Your task to perform on an android device: What's on my calendar today? Image 0: 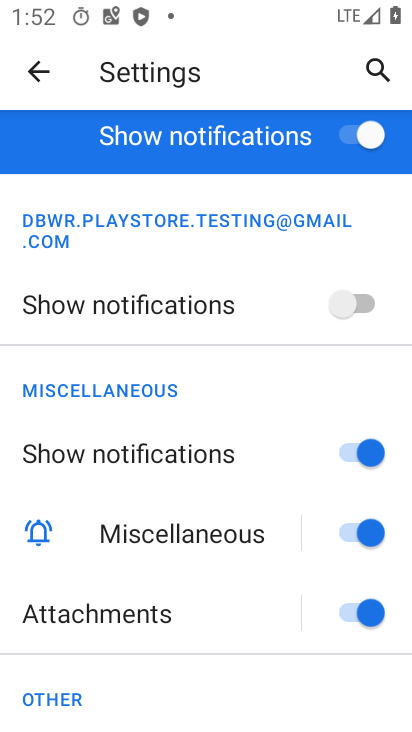
Step 0: press back button
Your task to perform on an android device: What's on my calendar today? Image 1: 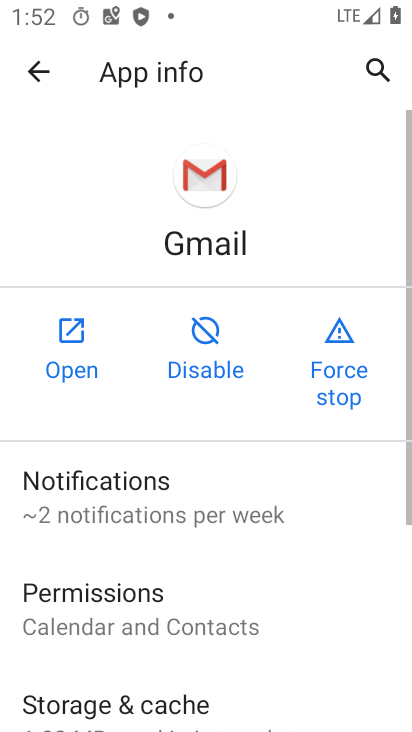
Step 1: press back button
Your task to perform on an android device: What's on my calendar today? Image 2: 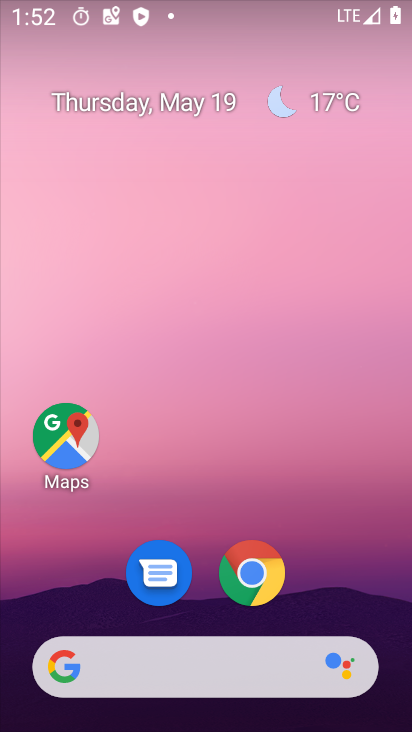
Step 2: drag from (242, 596) to (306, 76)
Your task to perform on an android device: What's on my calendar today? Image 3: 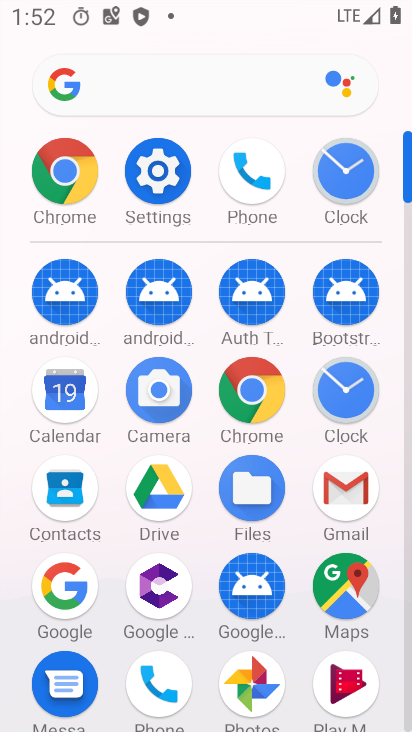
Step 3: click (63, 392)
Your task to perform on an android device: What's on my calendar today? Image 4: 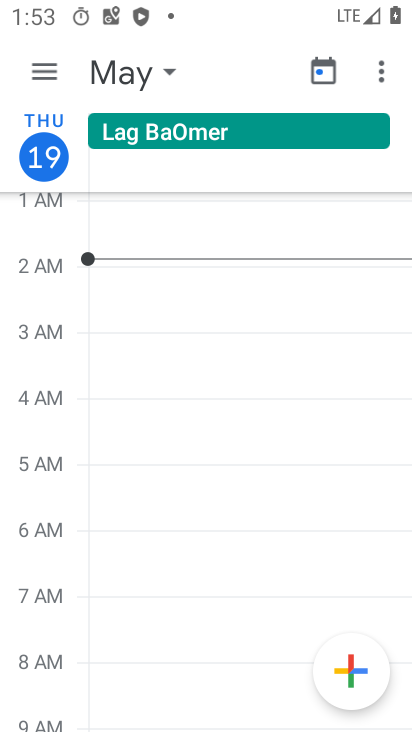
Step 4: click (39, 71)
Your task to perform on an android device: What's on my calendar today? Image 5: 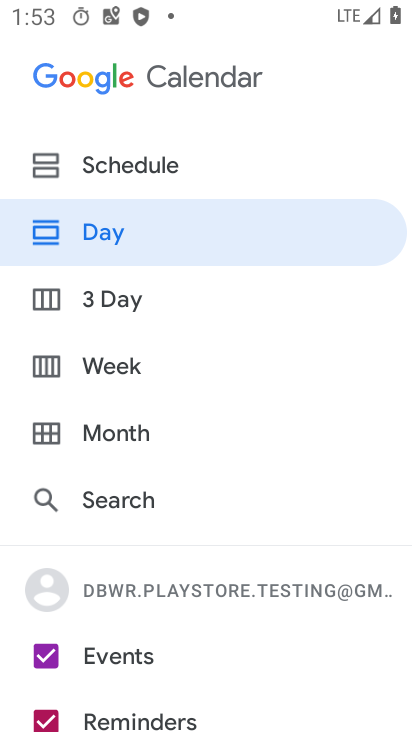
Step 5: click (98, 163)
Your task to perform on an android device: What's on my calendar today? Image 6: 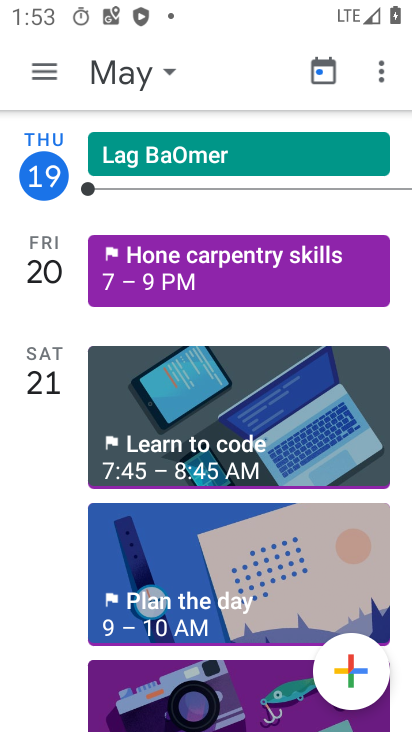
Step 6: task complete